Your task to perform on an android device: toggle sleep mode Image 0: 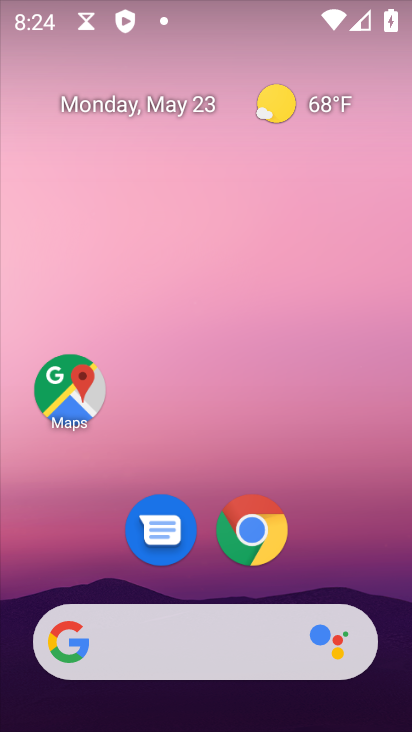
Step 0: drag from (66, 563) to (197, 116)
Your task to perform on an android device: toggle sleep mode Image 1: 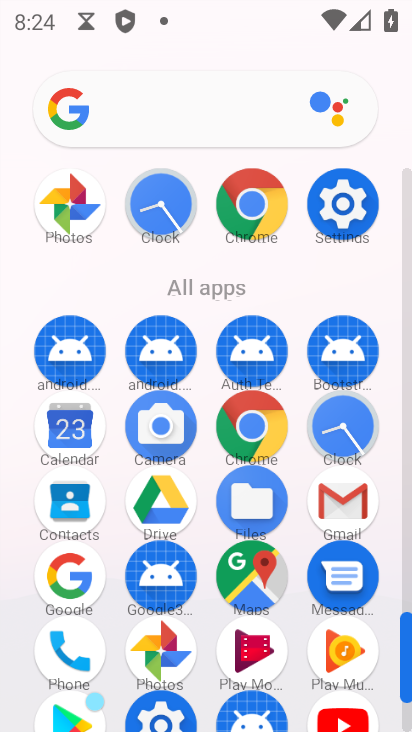
Step 1: drag from (77, 629) to (212, 231)
Your task to perform on an android device: toggle sleep mode Image 2: 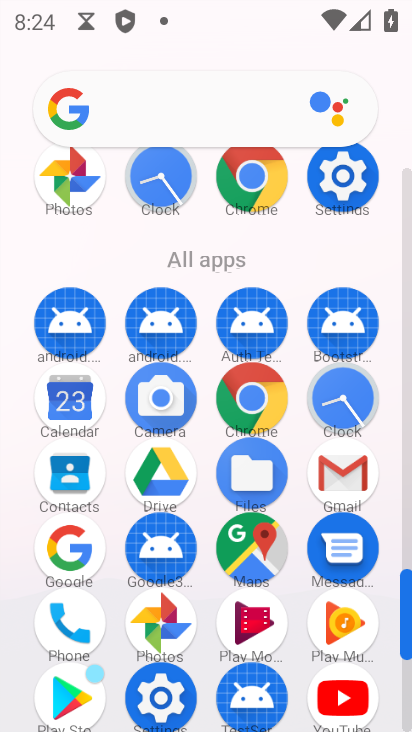
Step 2: click (160, 704)
Your task to perform on an android device: toggle sleep mode Image 3: 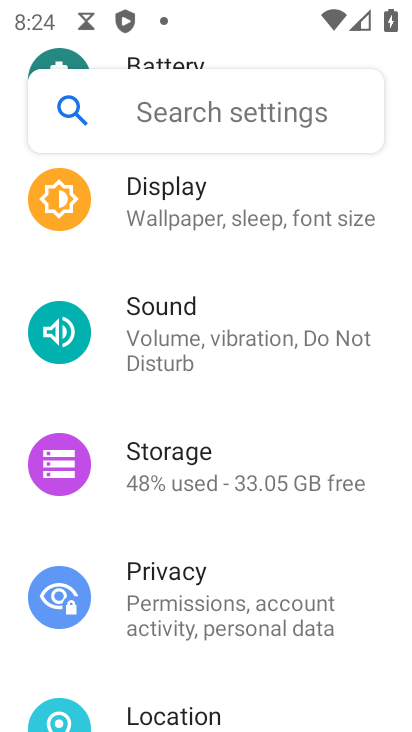
Step 3: click (205, 221)
Your task to perform on an android device: toggle sleep mode Image 4: 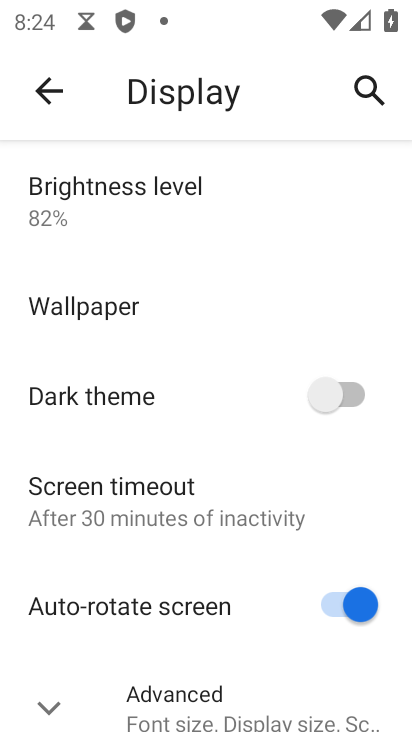
Step 4: drag from (92, 629) to (173, 262)
Your task to perform on an android device: toggle sleep mode Image 5: 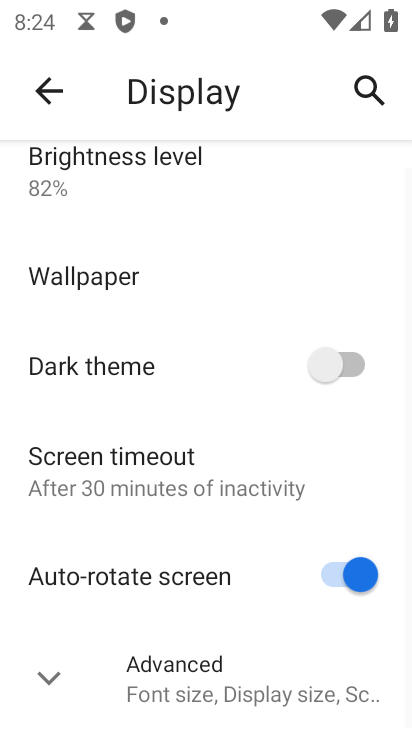
Step 5: click (158, 662)
Your task to perform on an android device: toggle sleep mode Image 6: 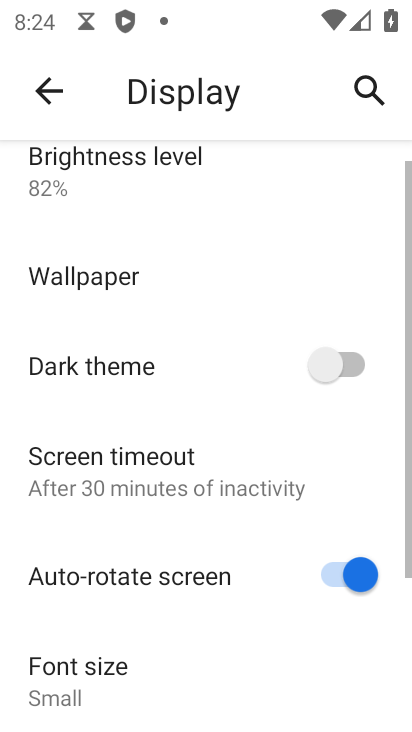
Step 6: task complete